Your task to perform on an android device: turn on bluetooth scan Image 0: 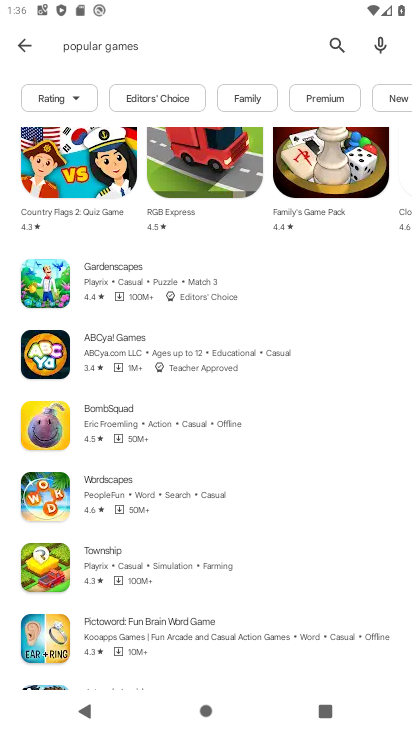
Step 0: press home button
Your task to perform on an android device: turn on bluetooth scan Image 1: 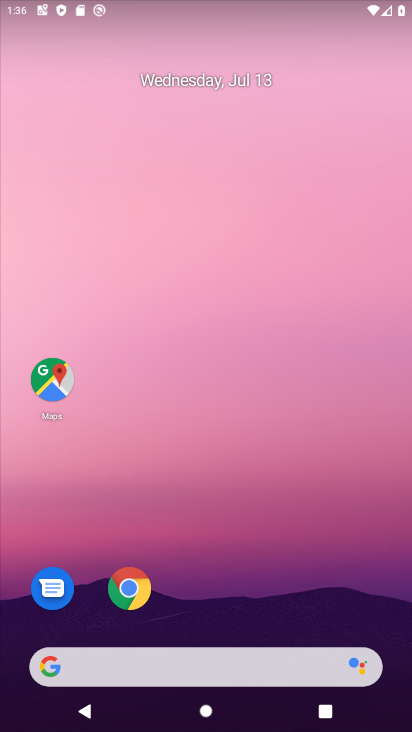
Step 1: drag from (150, 604) to (91, 203)
Your task to perform on an android device: turn on bluetooth scan Image 2: 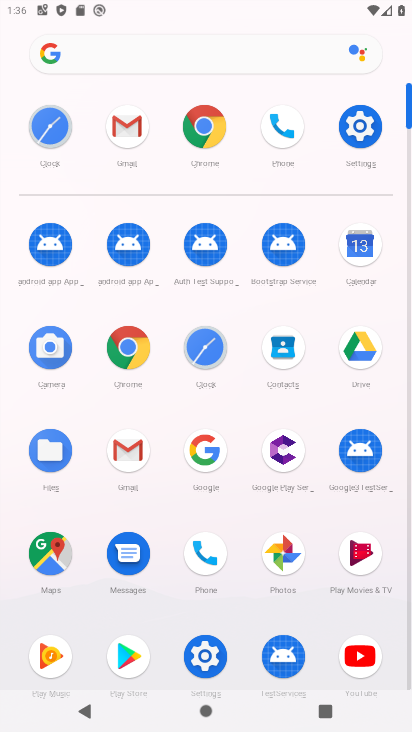
Step 2: click (353, 129)
Your task to perform on an android device: turn on bluetooth scan Image 3: 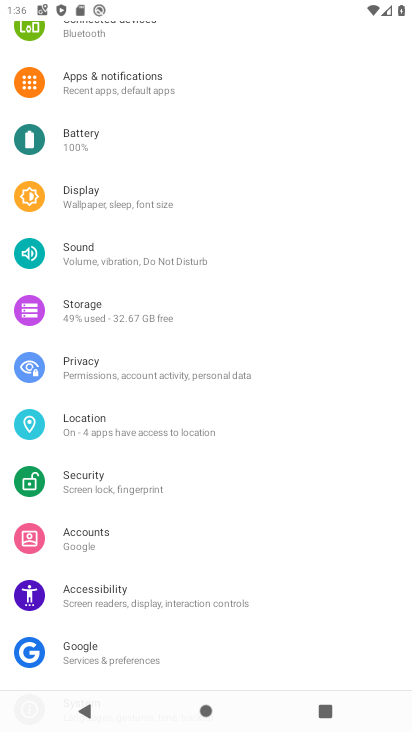
Step 3: click (98, 429)
Your task to perform on an android device: turn on bluetooth scan Image 4: 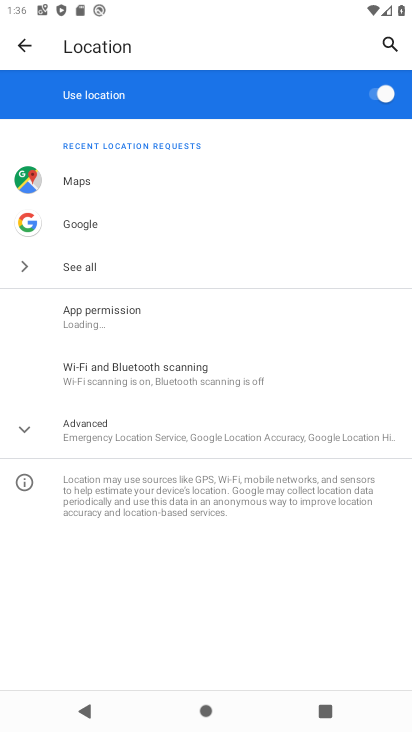
Step 4: click (87, 434)
Your task to perform on an android device: turn on bluetooth scan Image 5: 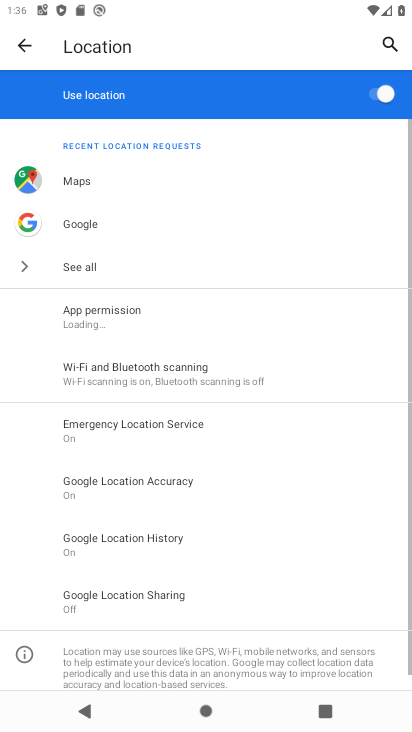
Step 5: click (77, 365)
Your task to perform on an android device: turn on bluetooth scan Image 6: 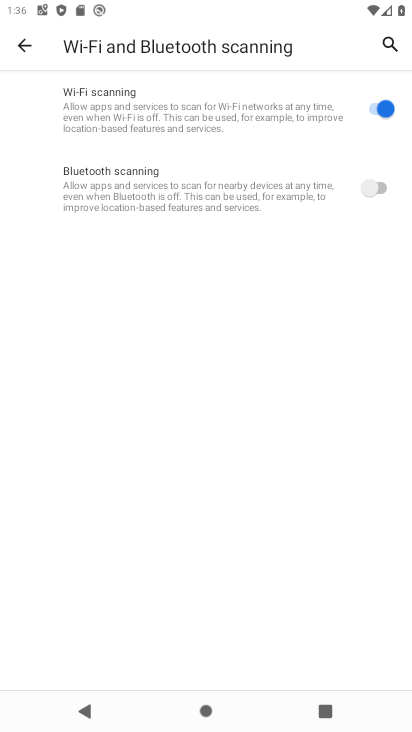
Step 6: click (373, 190)
Your task to perform on an android device: turn on bluetooth scan Image 7: 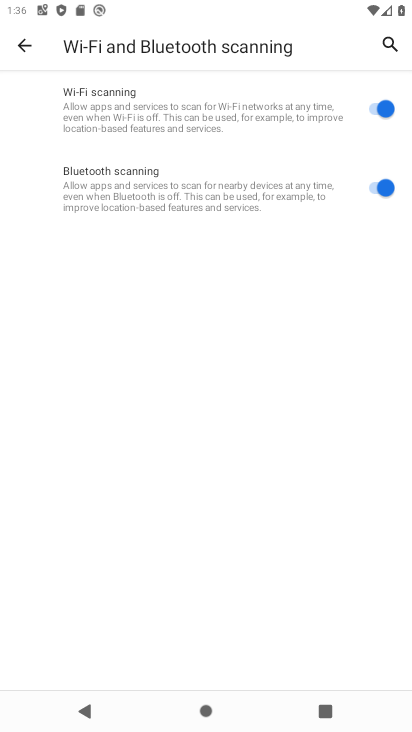
Step 7: task complete